Your task to perform on an android device: snooze an email in the gmail app Image 0: 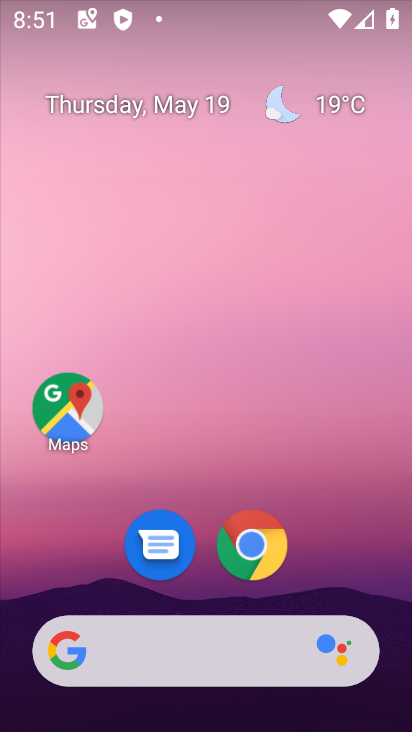
Step 0: drag from (317, 584) to (271, 147)
Your task to perform on an android device: snooze an email in the gmail app Image 1: 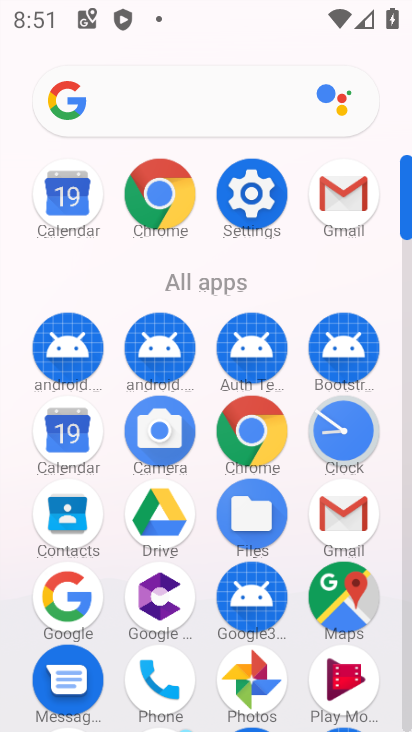
Step 1: click (347, 209)
Your task to perform on an android device: snooze an email in the gmail app Image 2: 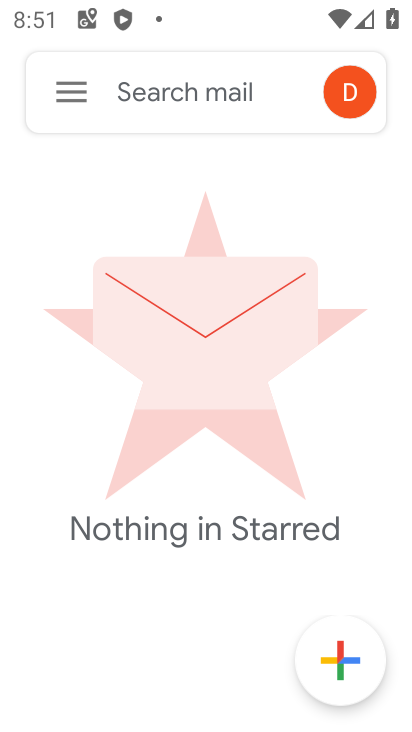
Step 2: click (62, 93)
Your task to perform on an android device: snooze an email in the gmail app Image 3: 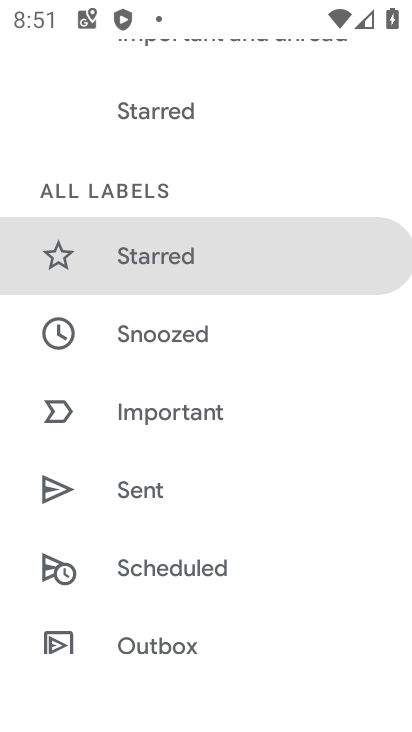
Step 3: drag from (142, 538) to (154, 318)
Your task to perform on an android device: snooze an email in the gmail app Image 4: 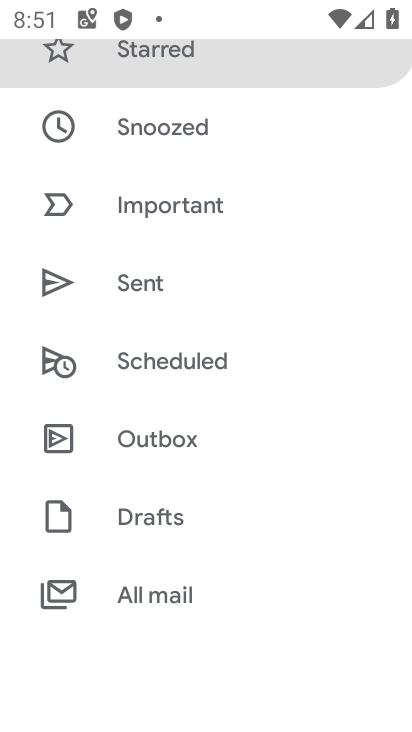
Step 4: drag from (223, 599) to (223, 499)
Your task to perform on an android device: snooze an email in the gmail app Image 5: 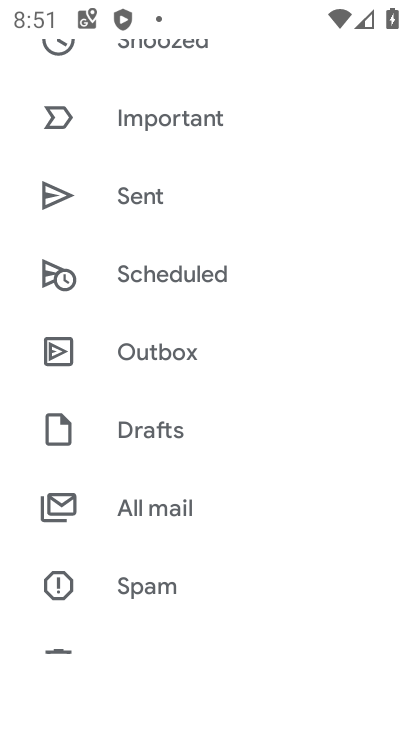
Step 5: drag from (212, 519) to (212, 414)
Your task to perform on an android device: snooze an email in the gmail app Image 6: 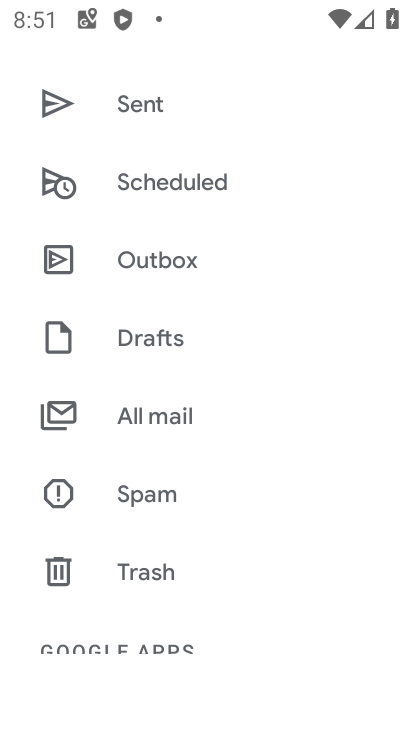
Step 6: click (212, 414)
Your task to perform on an android device: snooze an email in the gmail app Image 7: 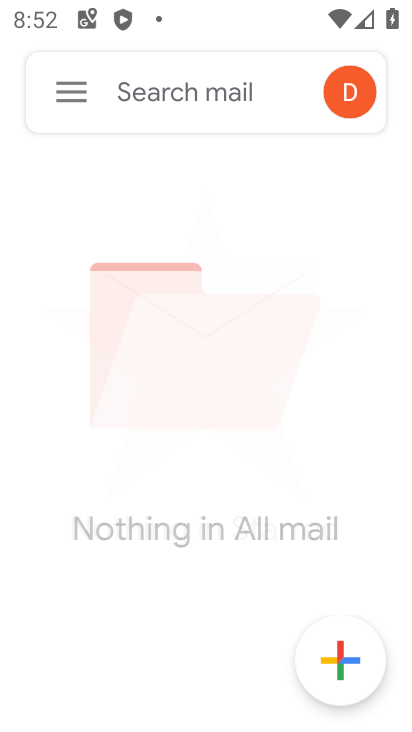
Step 7: task complete